Your task to perform on an android device: When is my next appointment? Image 0: 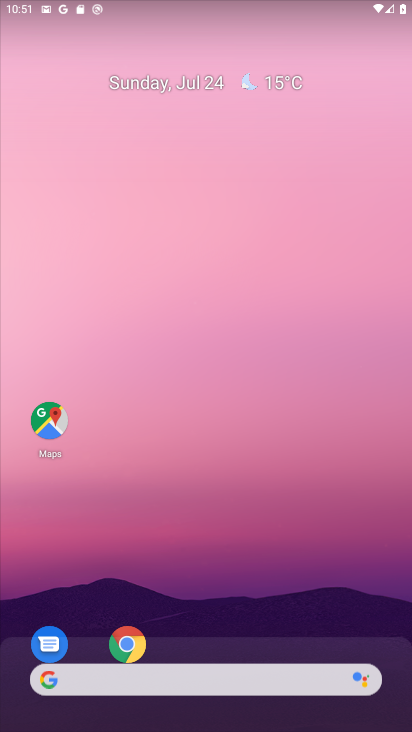
Step 0: drag from (206, 676) to (170, 238)
Your task to perform on an android device: When is my next appointment? Image 1: 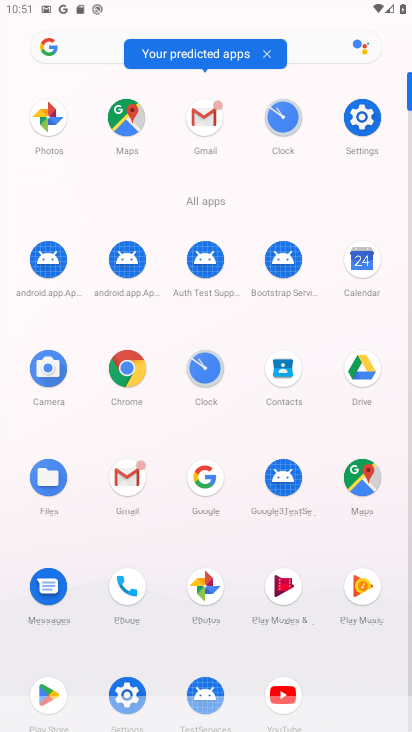
Step 1: click (358, 257)
Your task to perform on an android device: When is my next appointment? Image 2: 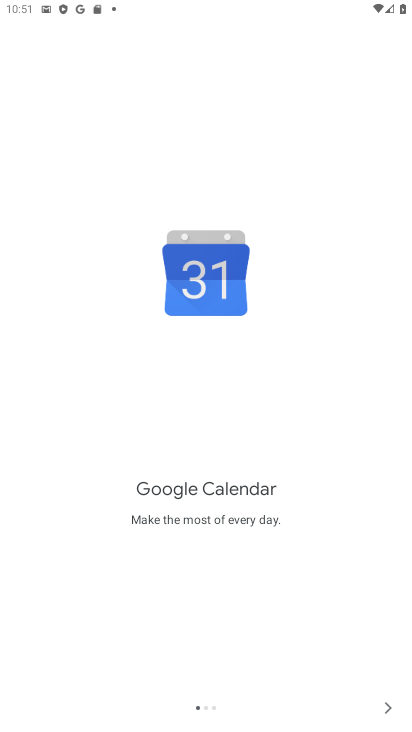
Step 2: click (385, 701)
Your task to perform on an android device: When is my next appointment? Image 3: 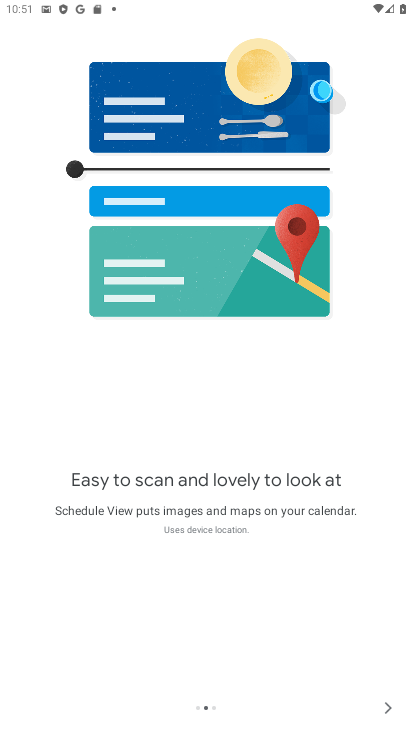
Step 3: click (390, 707)
Your task to perform on an android device: When is my next appointment? Image 4: 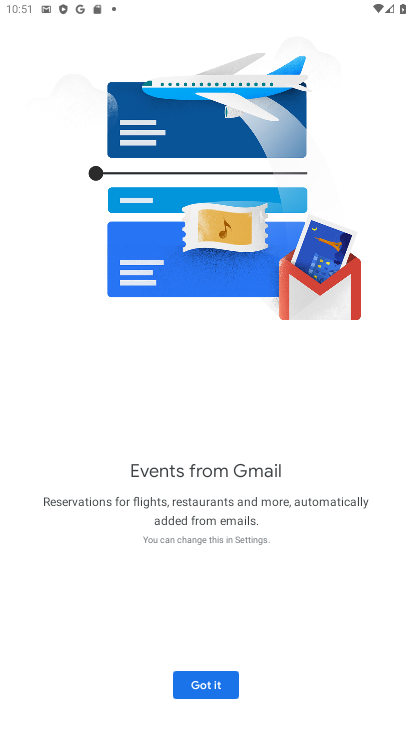
Step 4: click (216, 679)
Your task to perform on an android device: When is my next appointment? Image 5: 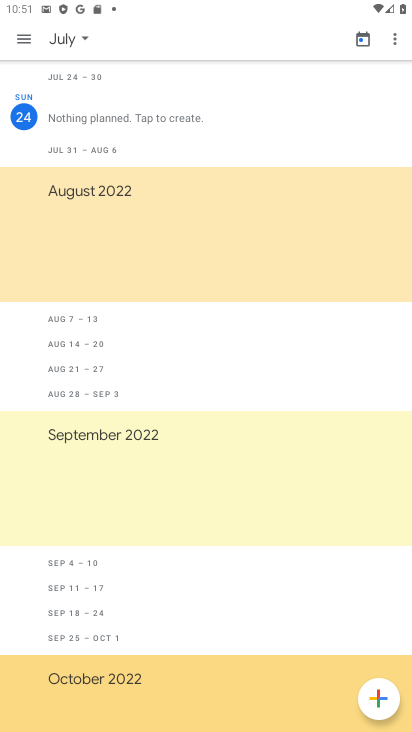
Step 5: click (81, 35)
Your task to perform on an android device: When is my next appointment? Image 6: 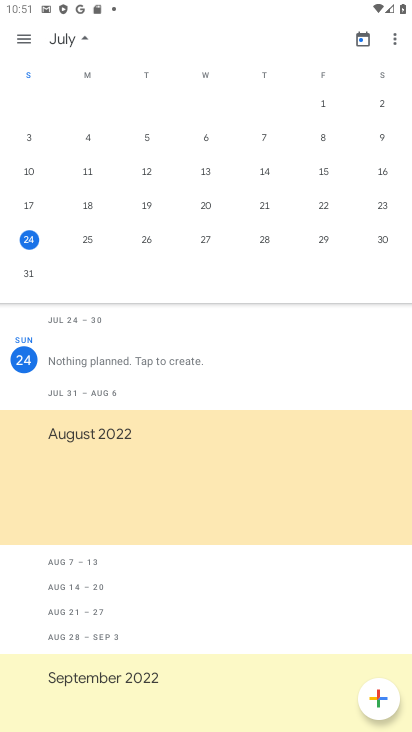
Step 6: click (86, 238)
Your task to perform on an android device: When is my next appointment? Image 7: 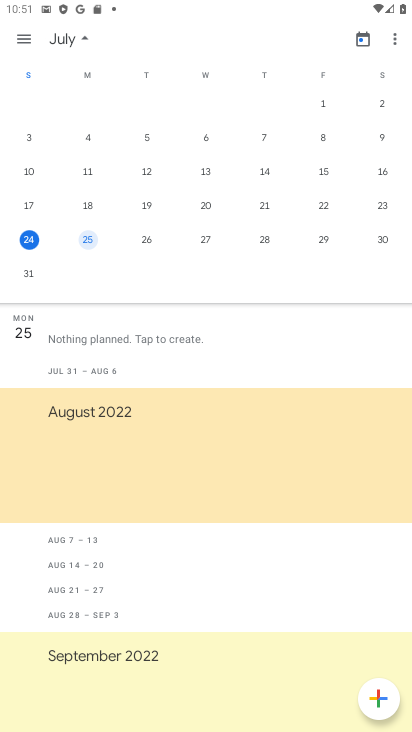
Step 7: click (80, 241)
Your task to perform on an android device: When is my next appointment? Image 8: 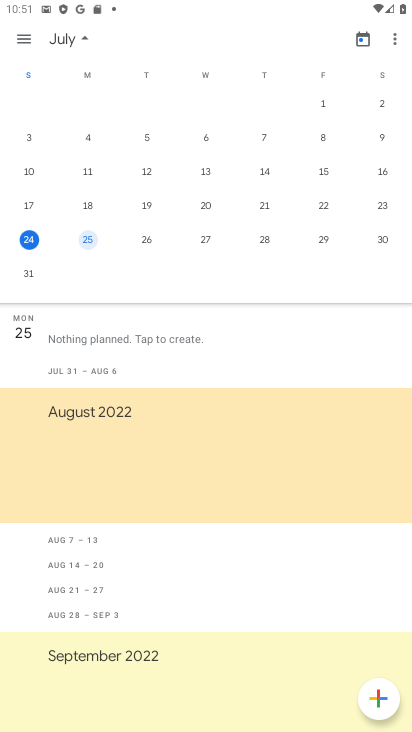
Step 8: task complete